Your task to perform on an android device: empty trash in the gmail app Image 0: 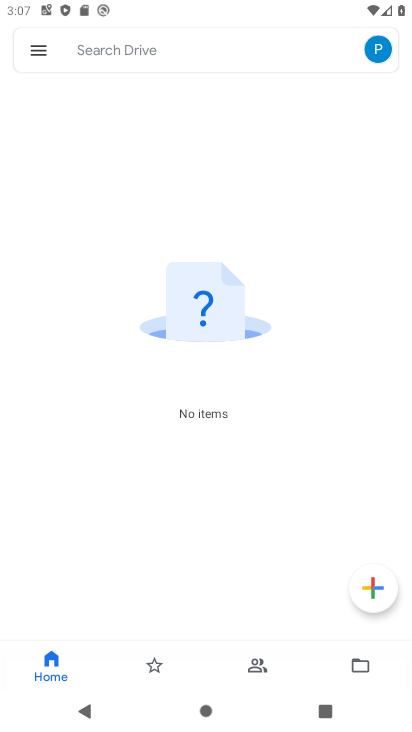
Step 0: press home button
Your task to perform on an android device: empty trash in the gmail app Image 1: 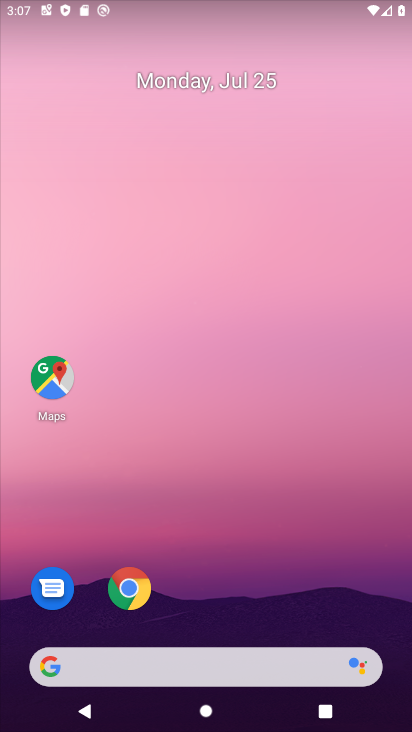
Step 1: drag from (278, 563) to (248, 12)
Your task to perform on an android device: empty trash in the gmail app Image 2: 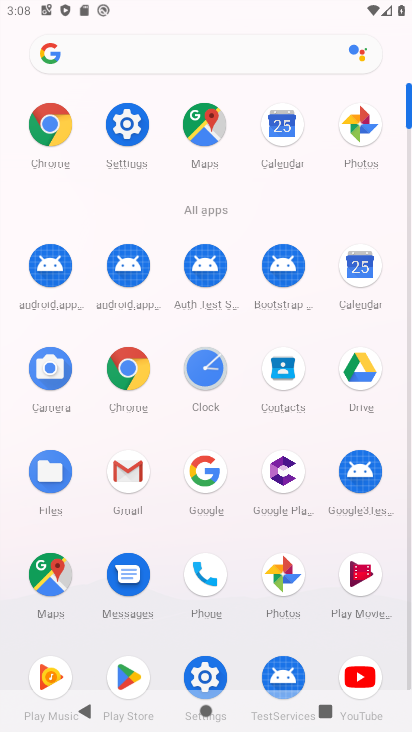
Step 2: click (134, 471)
Your task to perform on an android device: empty trash in the gmail app Image 3: 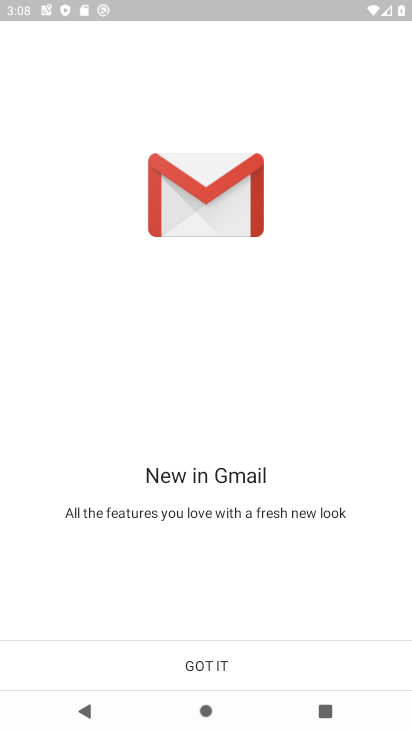
Step 3: click (279, 665)
Your task to perform on an android device: empty trash in the gmail app Image 4: 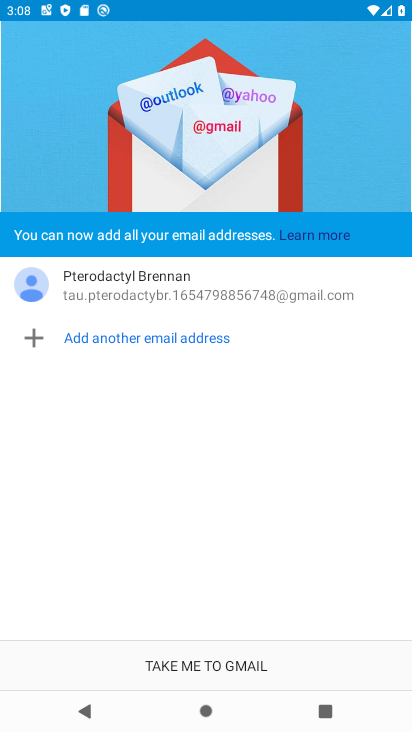
Step 4: click (276, 647)
Your task to perform on an android device: empty trash in the gmail app Image 5: 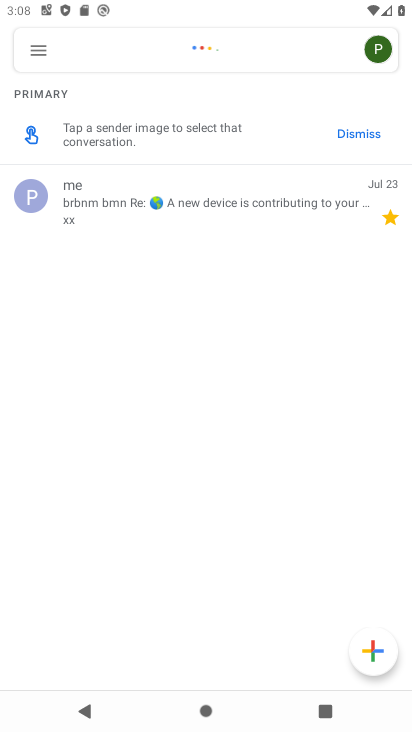
Step 5: click (32, 49)
Your task to perform on an android device: empty trash in the gmail app Image 6: 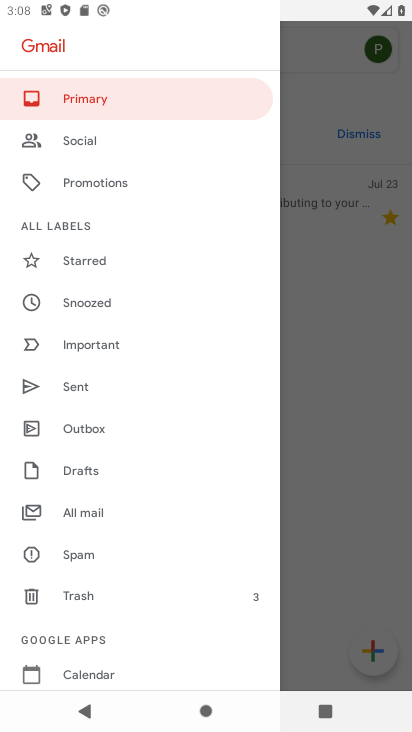
Step 6: click (95, 601)
Your task to perform on an android device: empty trash in the gmail app Image 7: 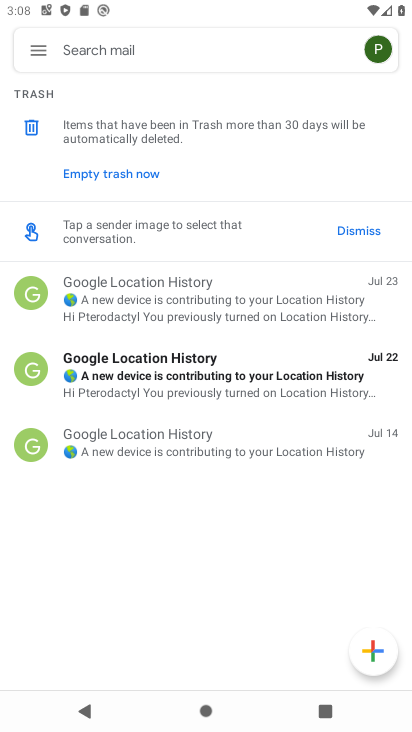
Step 7: click (86, 175)
Your task to perform on an android device: empty trash in the gmail app Image 8: 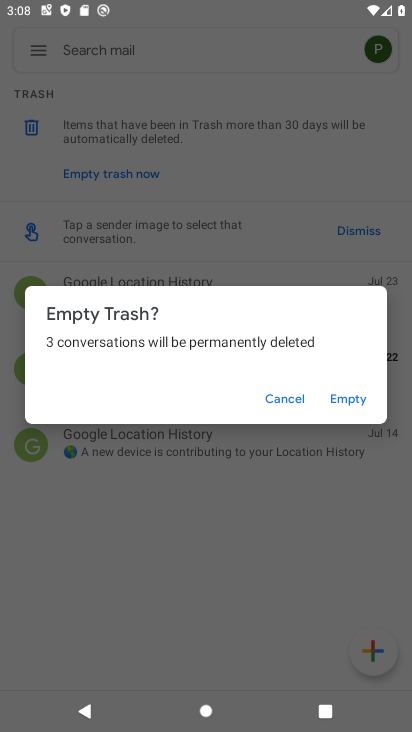
Step 8: click (345, 405)
Your task to perform on an android device: empty trash in the gmail app Image 9: 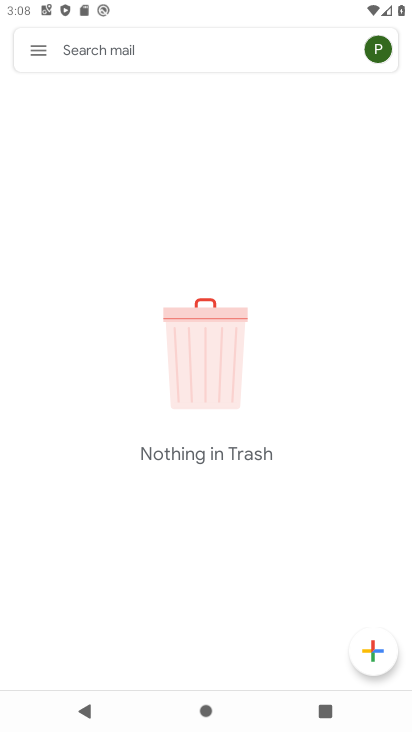
Step 9: task complete